Your task to perform on an android device: check battery use Image 0: 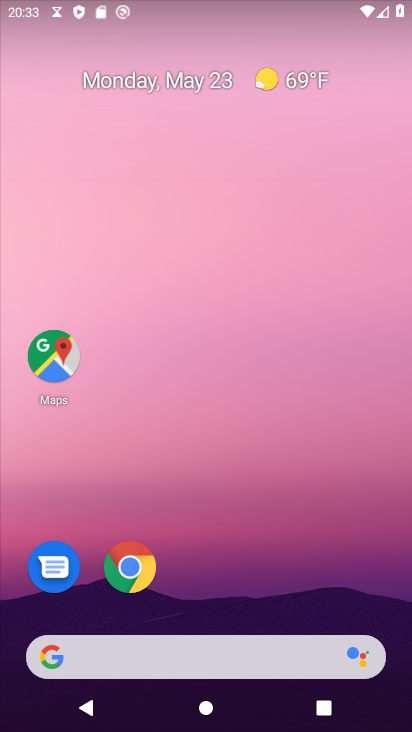
Step 0: drag from (240, 598) to (287, 0)
Your task to perform on an android device: check battery use Image 1: 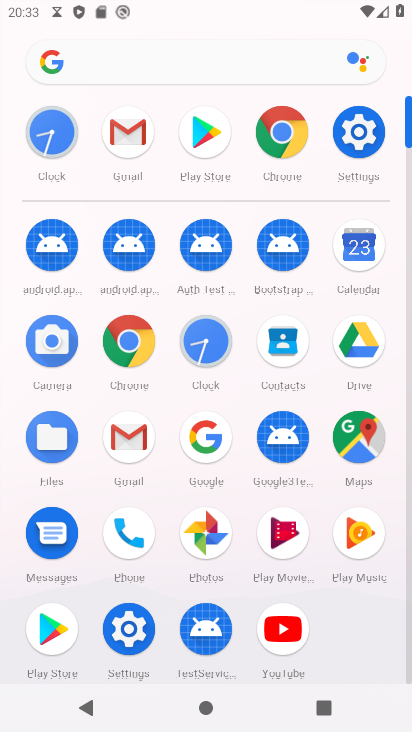
Step 1: click (124, 628)
Your task to perform on an android device: check battery use Image 2: 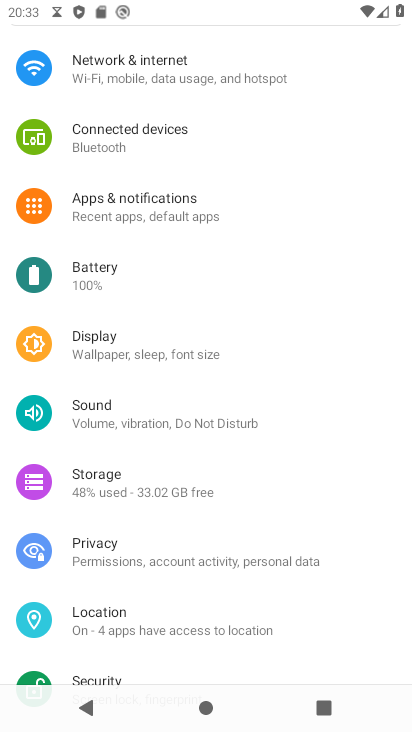
Step 2: click (139, 280)
Your task to perform on an android device: check battery use Image 3: 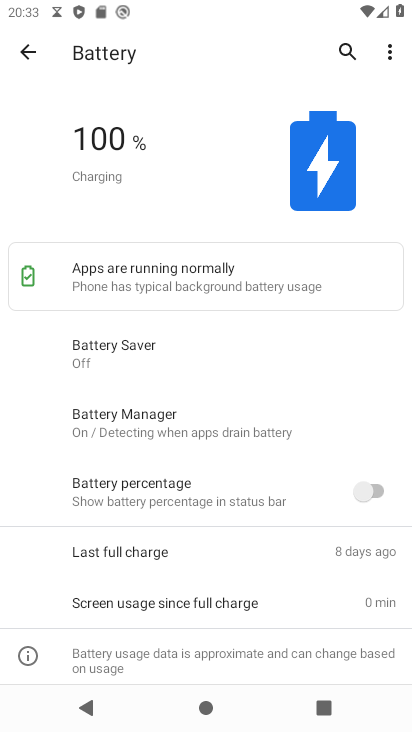
Step 3: click (389, 48)
Your task to perform on an android device: check battery use Image 4: 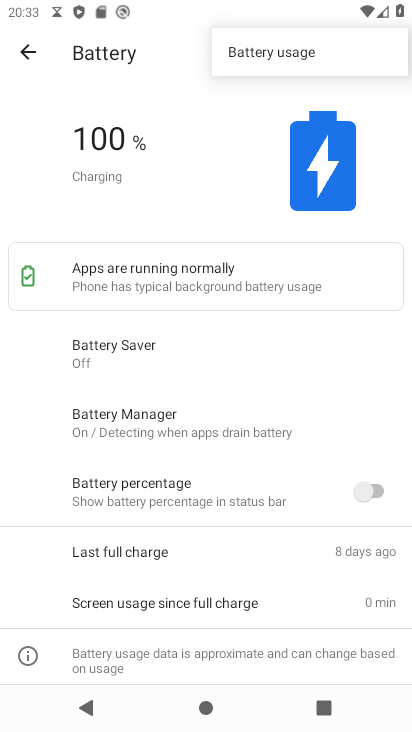
Step 4: click (310, 52)
Your task to perform on an android device: check battery use Image 5: 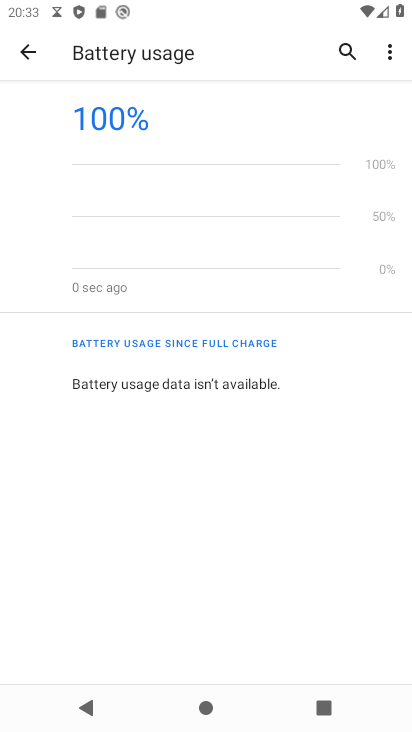
Step 5: task complete